Your task to perform on an android device: Clear all items from cart on ebay. Add "usb-c" to the cart on ebay Image 0: 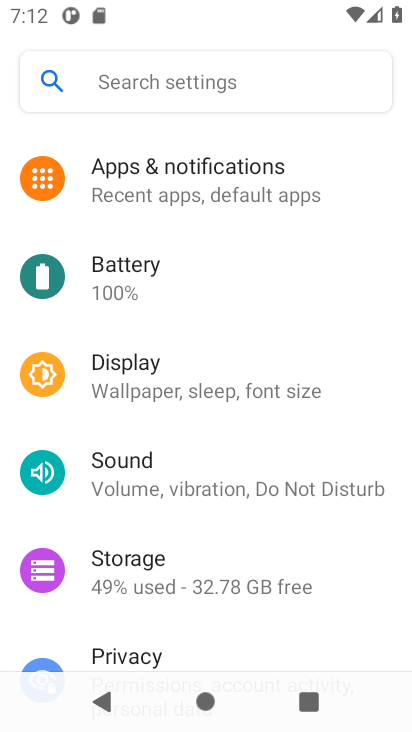
Step 0: press home button
Your task to perform on an android device: Clear all items from cart on ebay. Add "usb-c" to the cart on ebay Image 1: 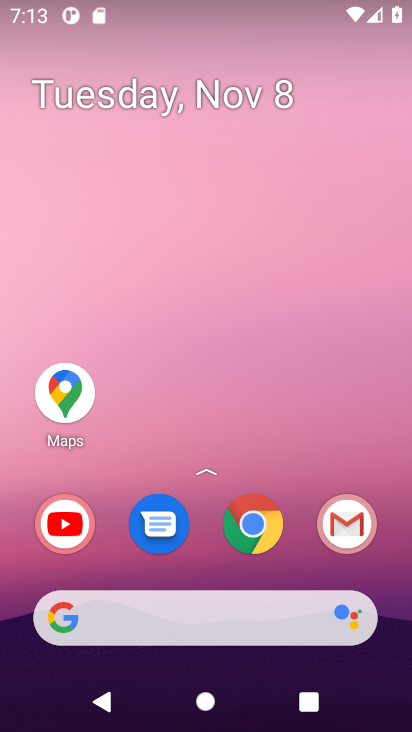
Step 1: click (255, 526)
Your task to perform on an android device: Clear all items from cart on ebay. Add "usb-c" to the cart on ebay Image 2: 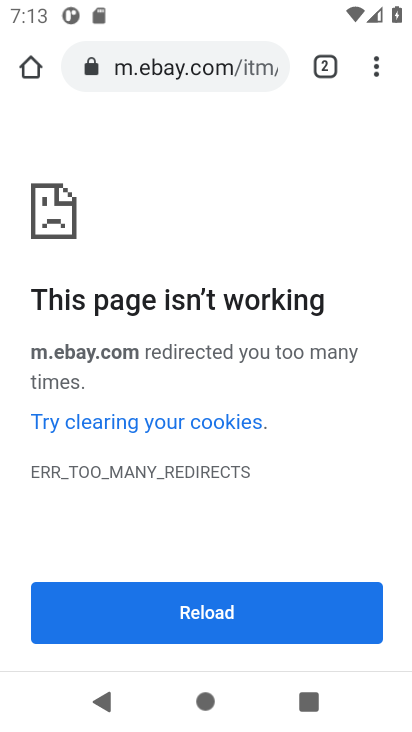
Step 2: click (140, 70)
Your task to perform on an android device: Clear all items from cart on ebay. Add "usb-c" to the cart on ebay Image 3: 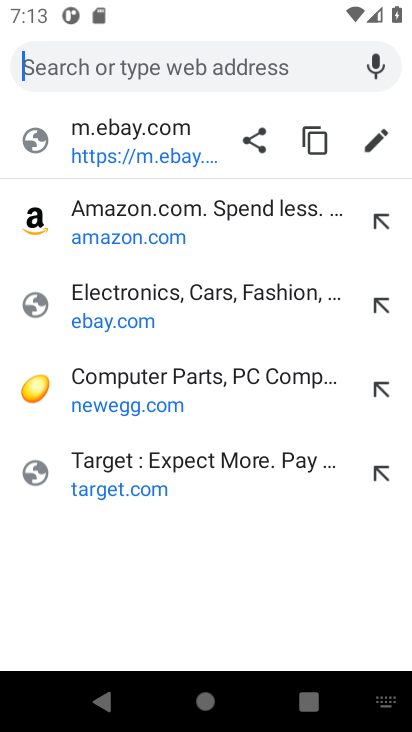
Step 3: click (91, 158)
Your task to perform on an android device: Clear all items from cart on ebay. Add "usb-c" to the cart on ebay Image 4: 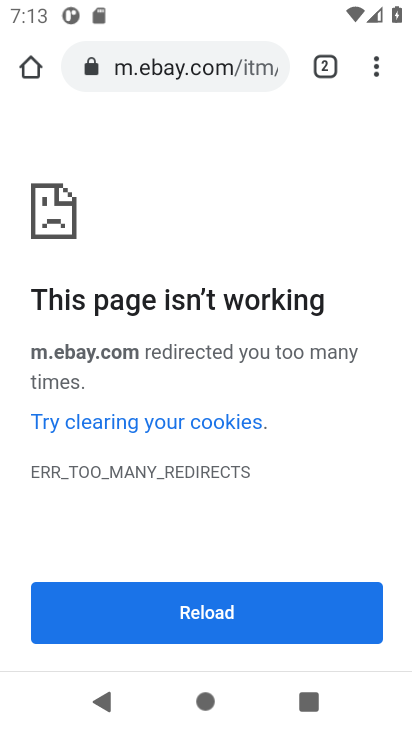
Step 4: click (182, 64)
Your task to perform on an android device: Clear all items from cart on ebay. Add "usb-c" to the cart on ebay Image 5: 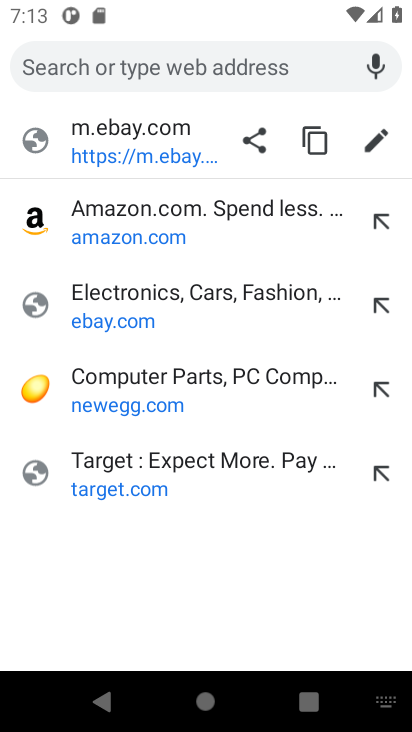
Step 5: click (101, 321)
Your task to perform on an android device: Clear all items from cart on ebay. Add "usb-c" to the cart on ebay Image 6: 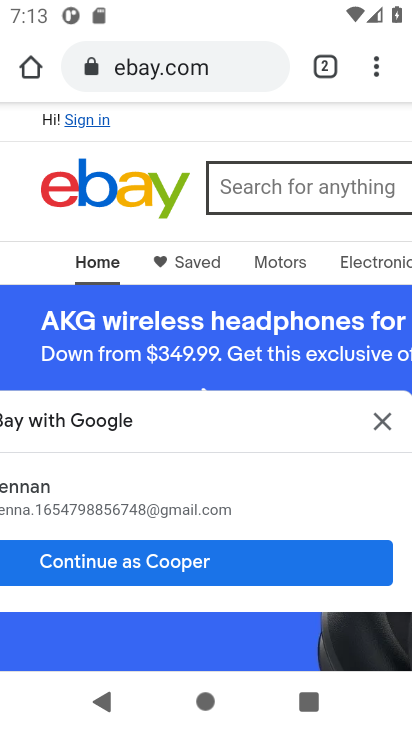
Step 6: drag from (312, 235) to (25, 233)
Your task to perform on an android device: Clear all items from cart on ebay. Add "usb-c" to the cart on ebay Image 7: 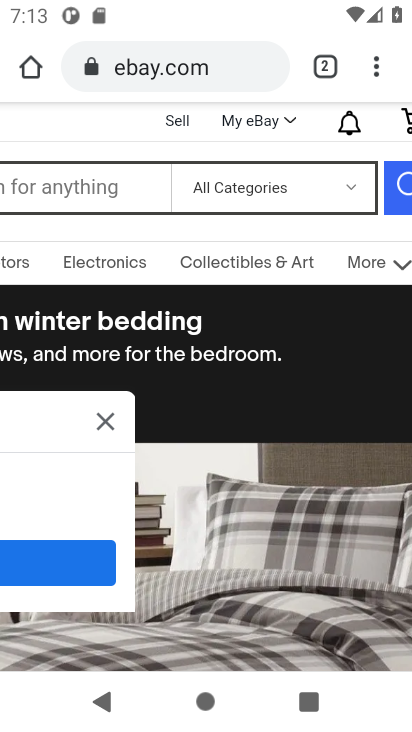
Step 7: drag from (340, 223) to (113, 219)
Your task to perform on an android device: Clear all items from cart on ebay. Add "usb-c" to the cart on ebay Image 8: 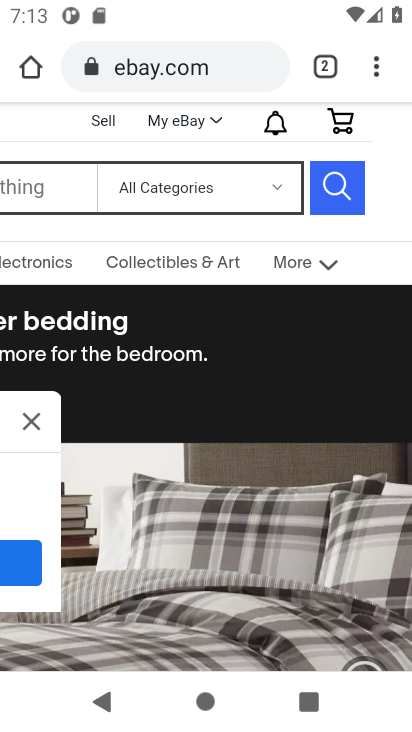
Step 8: click (328, 122)
Your task to perform on an android device: Clear all items from cart on ebay. Add "usb-c" to the cart on ebay Image 9: 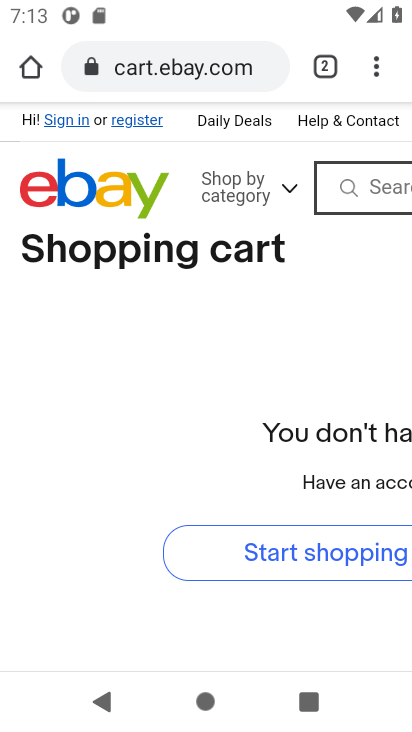
Step 9: drag from (202, 441) to (3, 416)
Your task to perform on an android device: Clear all items from cart on ebay. Add "usb-c" to the cart on ebay Image 10: 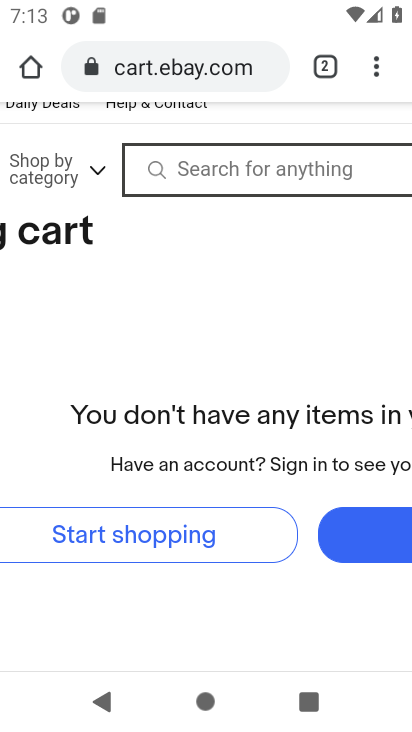
Step 10: click (230, 180)
Your task to perform on an android device: Clear all items from cart on ebay. Add "usb-c" to the cart on ebay Image 11: 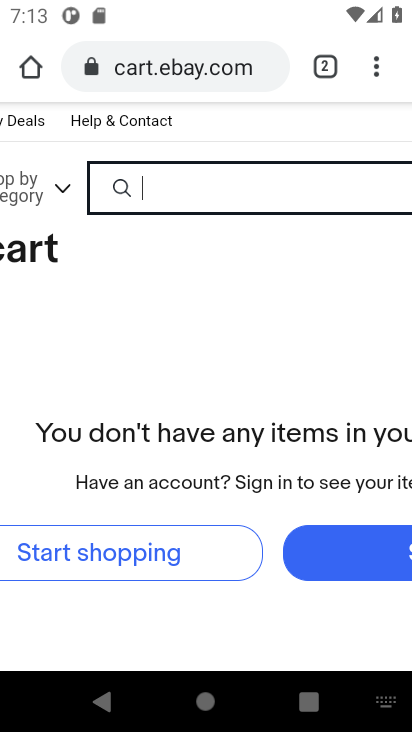
Step 11: type "usb-c"
Your task to perform on an android device: Clear all items from cart on ebay. Add "usb-c" to the cart on ebay Image 12: 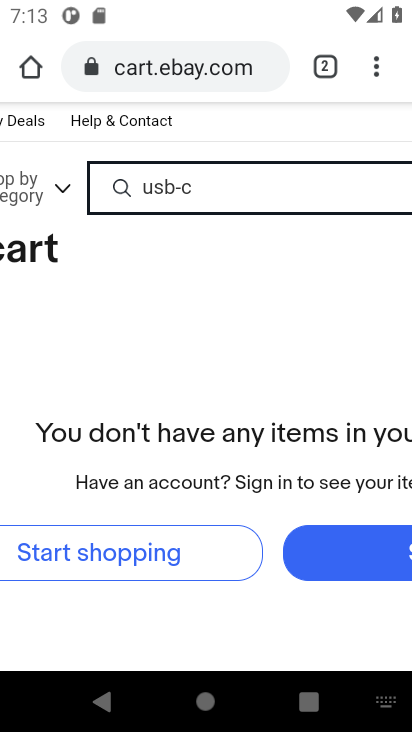
Step 12: click (114, 179)
Your task to perform on an android device: Clear all items from cart on ebay. Add "usb-c" to the cart on ebay Image 13: 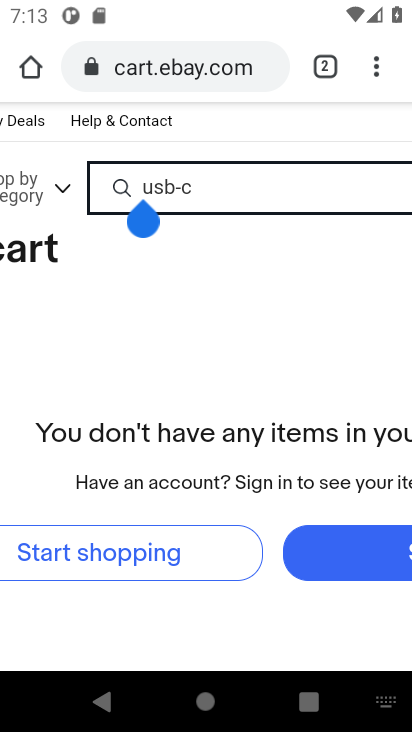
Step 13: click (119, 188)
Your task to perform on an android device: Clear all items from cart on ebay. Add "usb-c" to the cart on ebay Image 14: 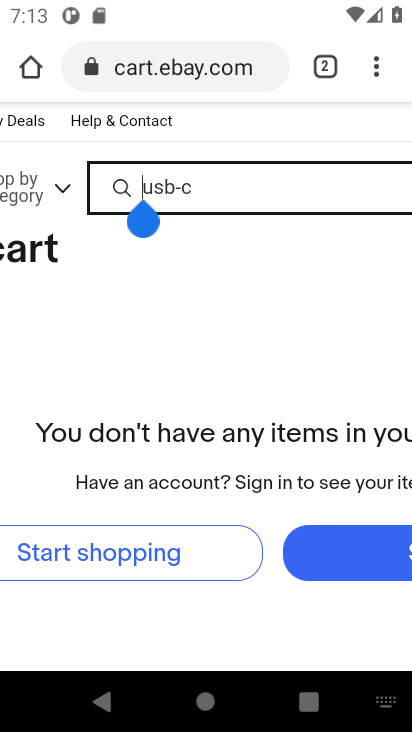
Step 14: drag from (299, 289) to (7, 323)
Your task to perform on an android device: Clear all items from cart on ebay. Add "usb-c" to the cart on ebay Image 15: 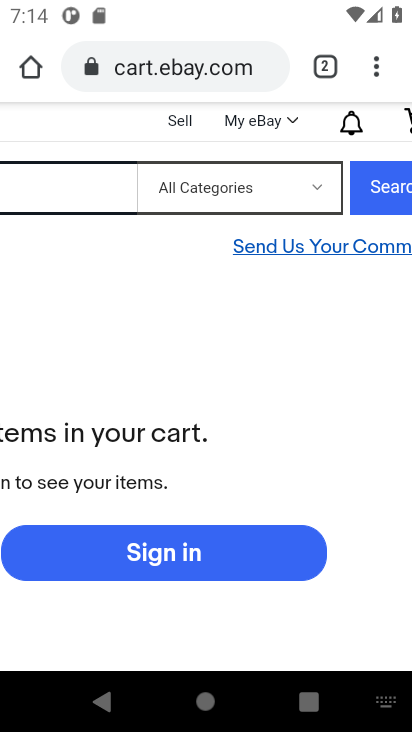
Step 15: click (402, 198)
Your task to perform on an android device: Clear all items from cart on ebay. Add "usb-c" to the cart on ebay Image 16: 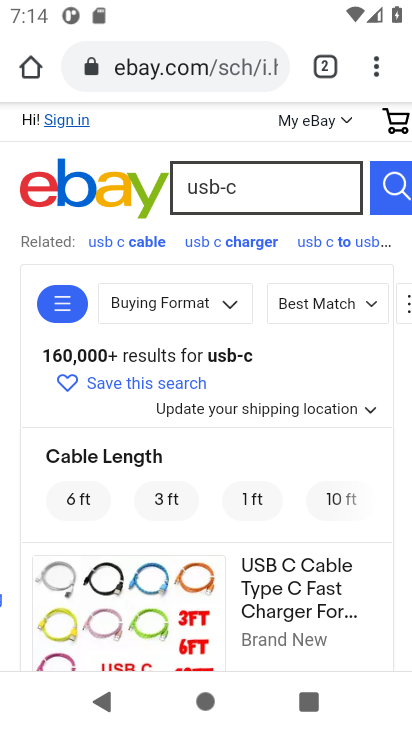
Step 16: click (144, 617)
Your task to perform on an android device: Clear all items from cart on ebay. Add "usb-c" to the cart on ebay Image 17: 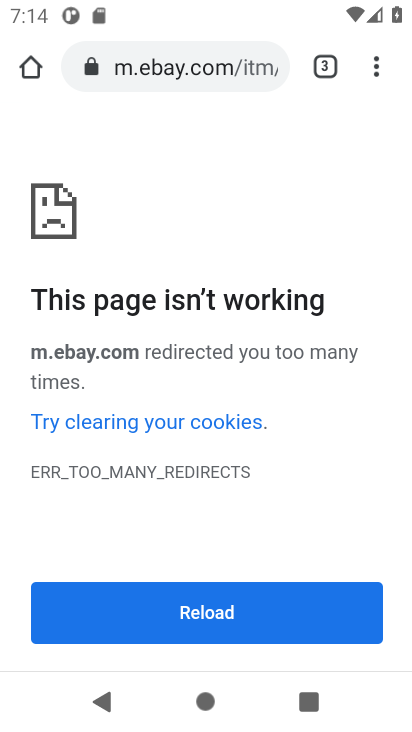
Step 17: task complete